Your task to perform on an android device: turn off priority inbox in the gmail app Image 0: 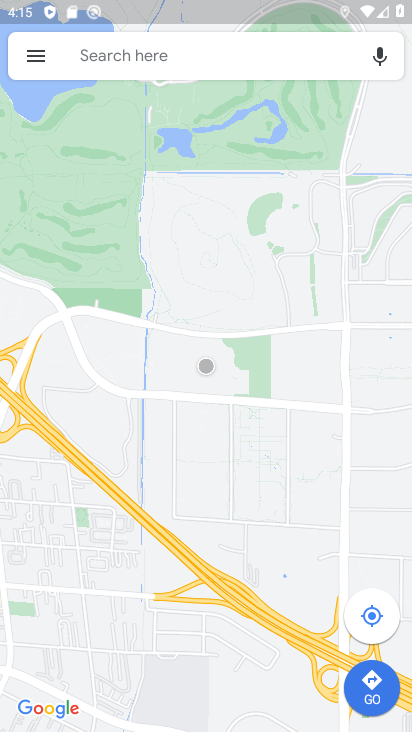
Step 0: press home button
Your task to perform on an android device: turn off priority inbox in the gmail app Image 1: 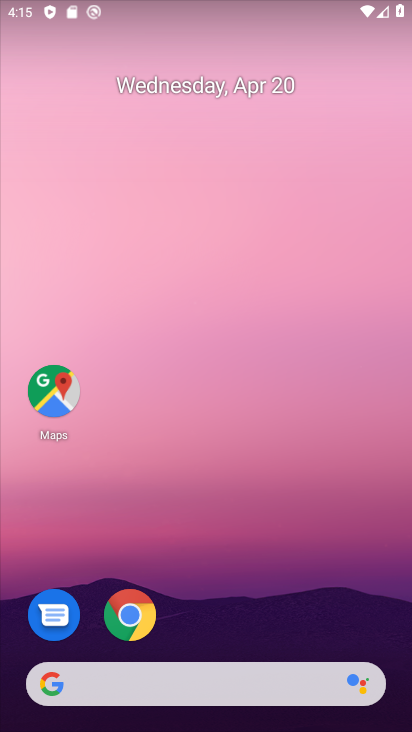
Step 1: drag from (200, 551) to (313, 0)
Your task to perform on an android device: turn off priority inbox in the gmail app Image 2: 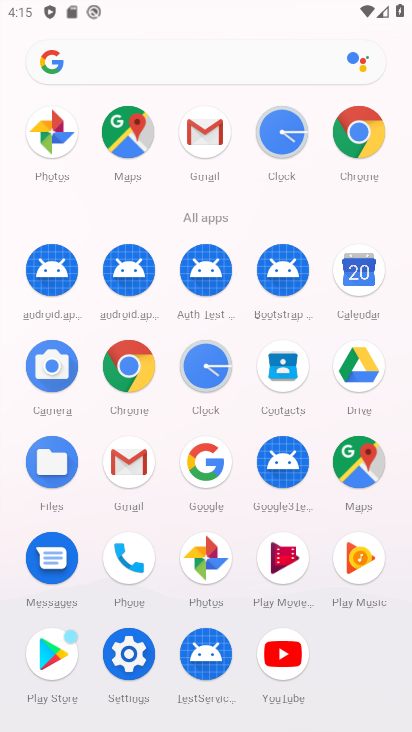
Step 2: click (126, 469)
Your task to perform on an android device: turn off priority inbox in the gmail app Image 3: 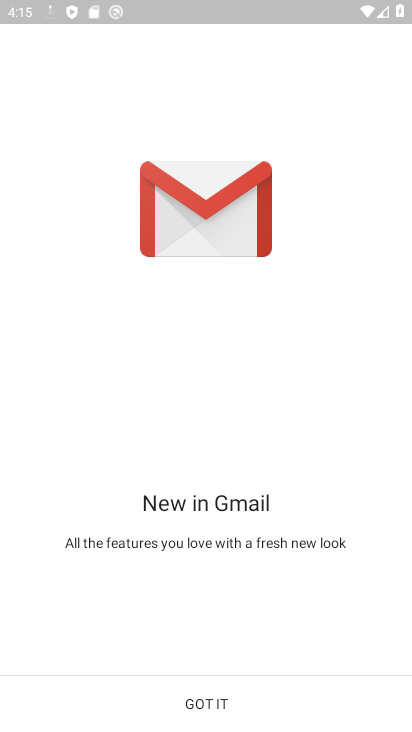
Step 3: click (225, 688)
Your task to perform on an android device: turn off priority inbox in the gmail app Image 4: 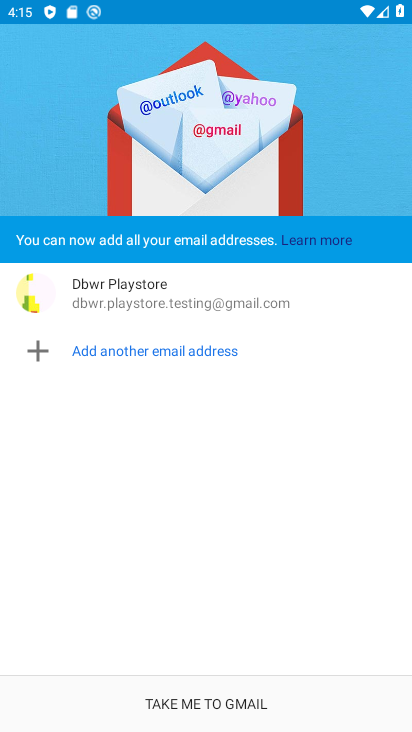
Step 4: click (214, 716)
Your task to perform on an android device: turn off priority inbox in the gmail app Image 5: 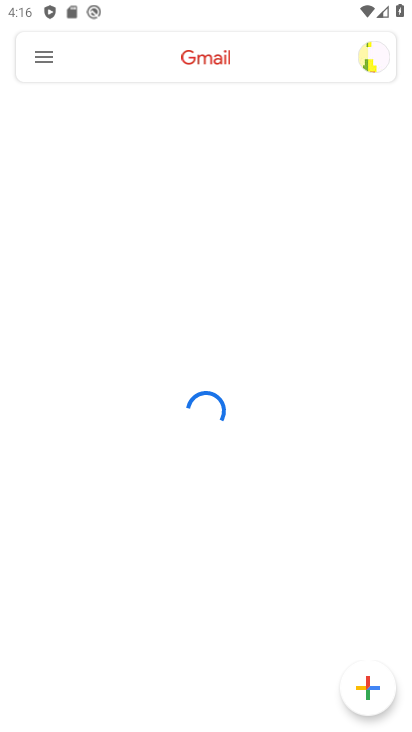
Step 5: click (51, 57)
Your task to perform on an android device: turn off priority inbox in the gmail app Image 6: 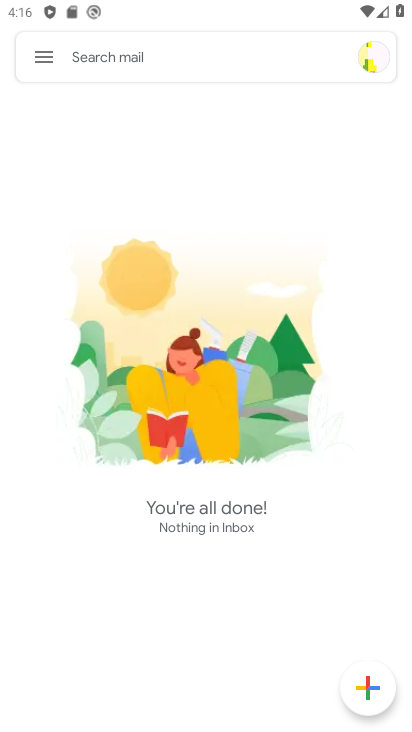
Step 6: click (42, 58)
Your task to perform on an android device: turn off priority inbox in the gmail app Image 7: 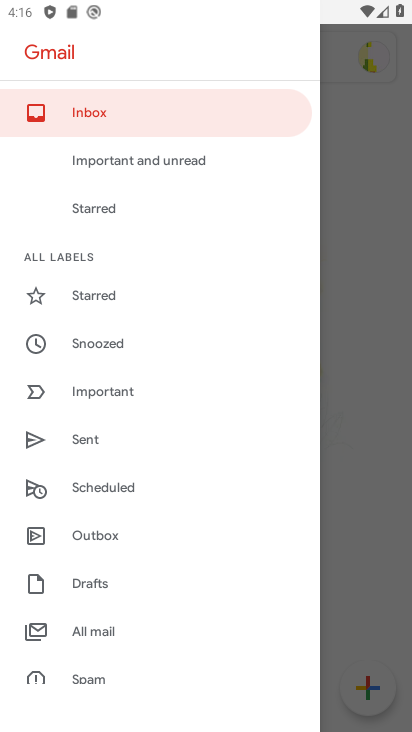
Step 7: drag from (72, 590) to (108, 271)
Your task to perform on an android device: turn off priority inbox in the gmail app Image 8: 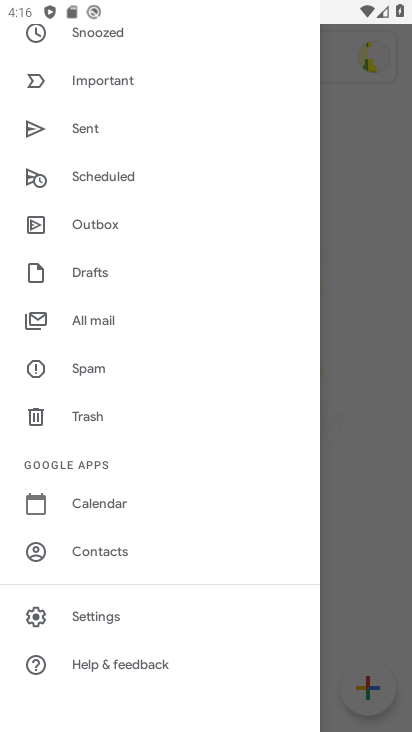
Step 8: click (84, 614)
Your task to perform on an android device: turn off priority inbox in the gmail app Image 9: 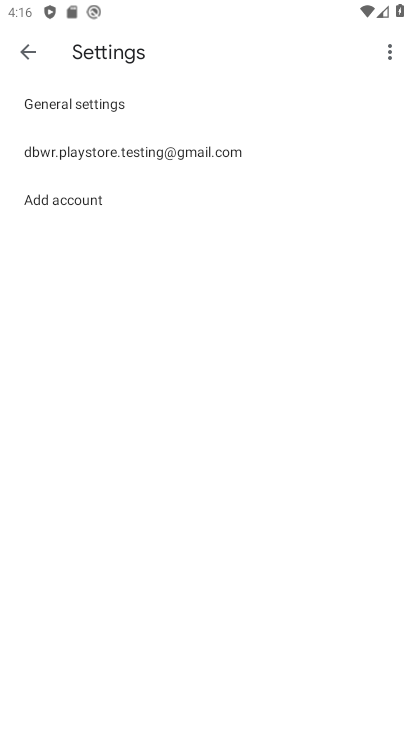
Step 9: click (90, 142)
Your task to perform on an android device: turn off priority inbox in the gmail app Image 10: 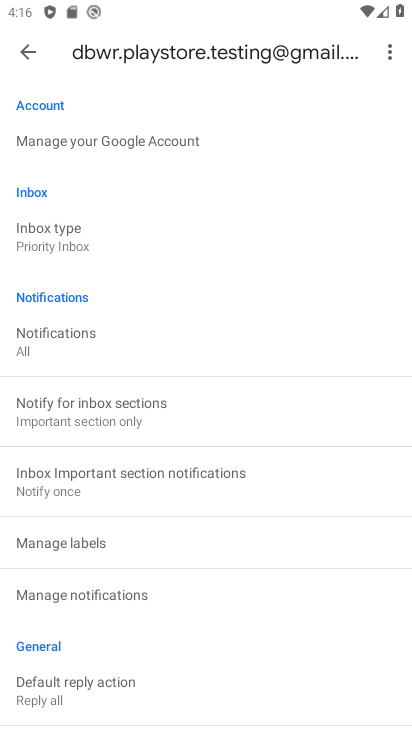
Step 10: click (60, 232)
Your task to perform on an android device: turn off priority inbox in the gmail app Image 11: 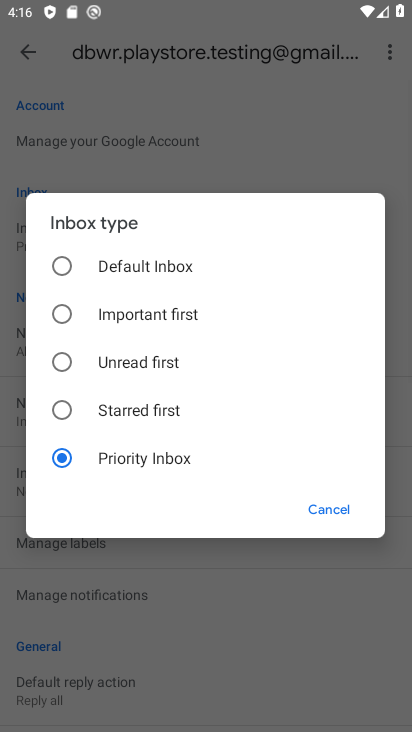
Step 11: click (74, 264)
Your task to perform on an android device: turn off priority inbox in the gmail app Image 12: 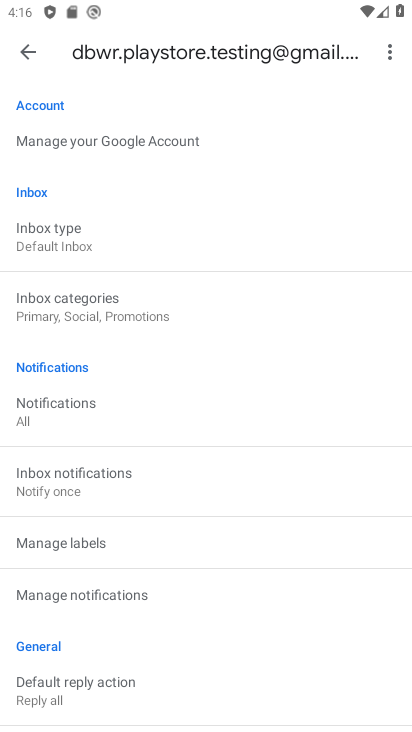
Step 12: task complete